Your task to perform on an android device: What's the weather? Image 0: 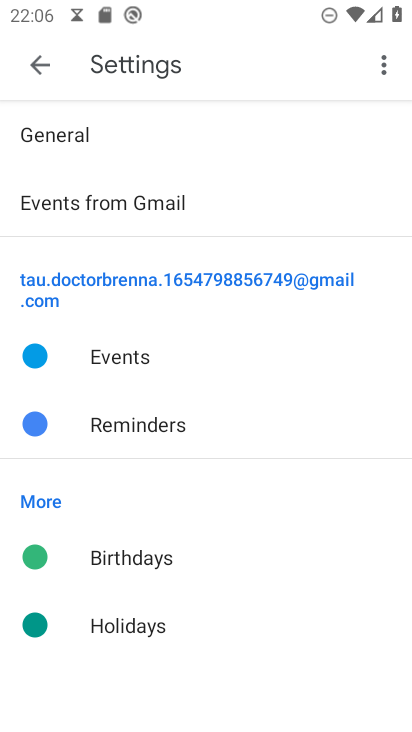
Step 0: press home button
Your task to perform on an android device: What's the weather? Image 1: 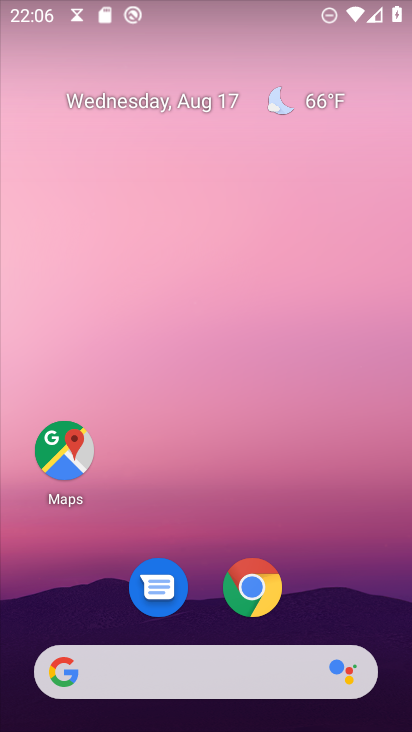
Step 1: click (159, 669)
Your task to perform on an android device: What's the weather? Image 2: 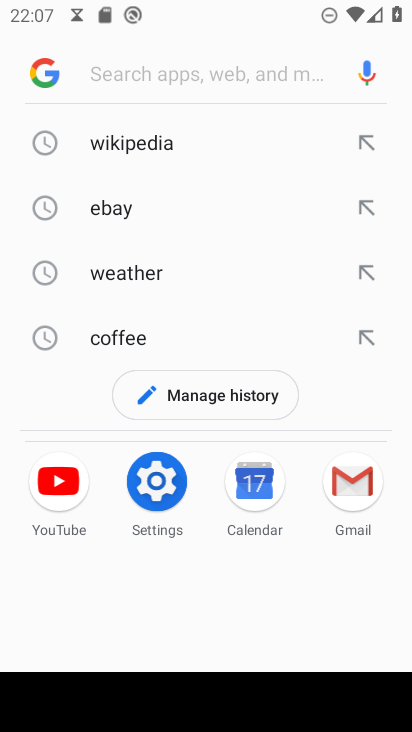
Step 2: type "What's the weather?"
Your task to perform on an android device: What's the weather? Image 3: 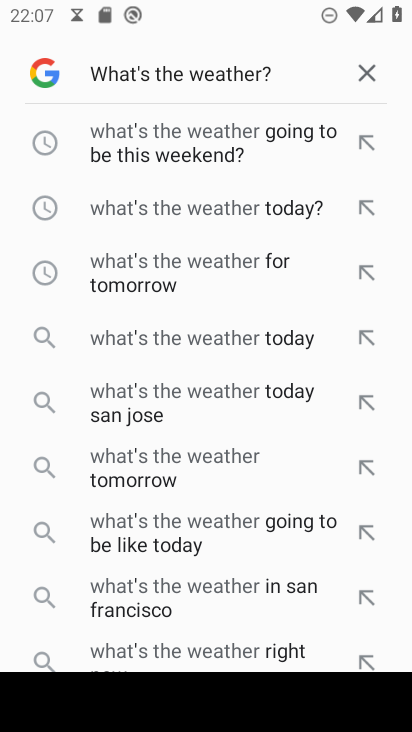
Step 3: type ""
Your task to perform on an android device: What's the weather? Image 4: 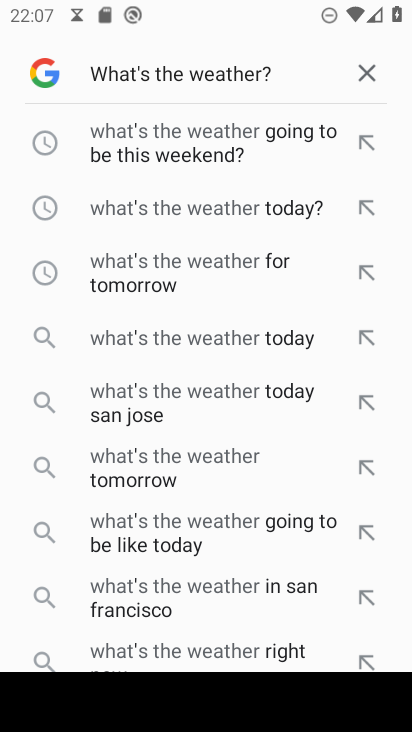
Step 4: type ""
Your task to perform on an android device: What's the weather? Image 5: 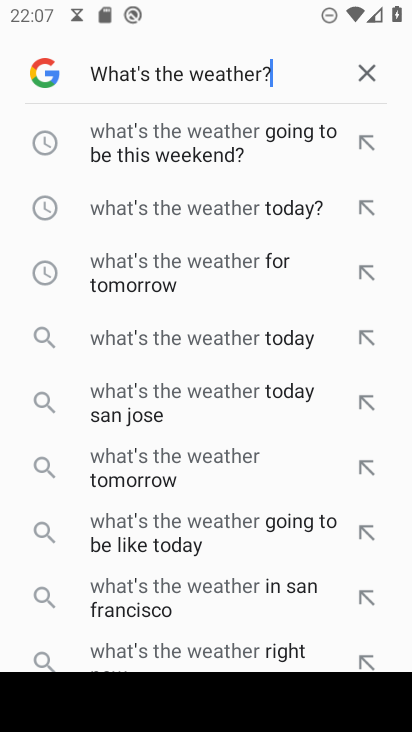
Step 5: task complete